Your task to perform on an android device: change alarm snooze length Image 0: 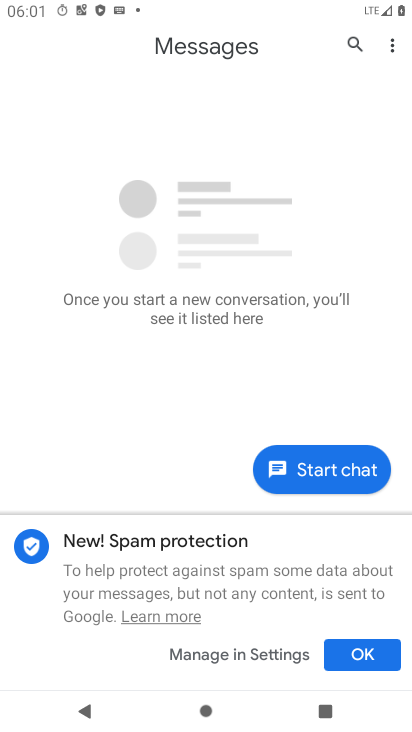
Step 0: press home button
Your task to perform on an android device: change alarm snooze length Image 1: 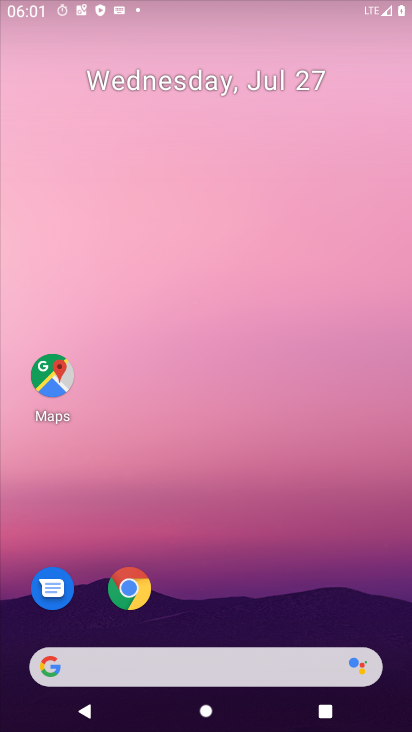
Step 1: drag from (271, 571) to (333, 28)
Your task to perform on an android device: change alarm snooze length Image 2: 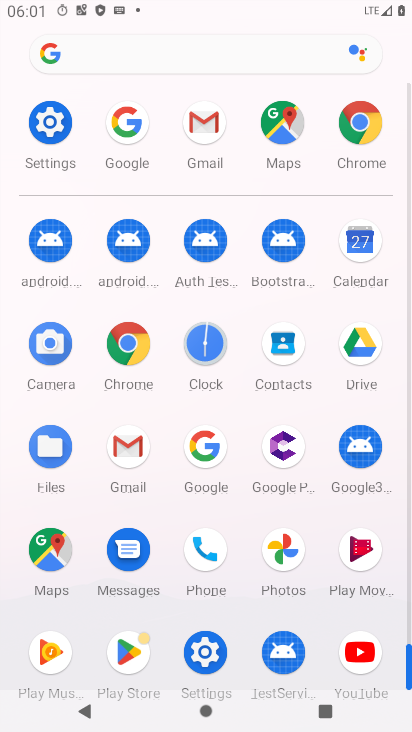
Step 2: click (204, 355)
Your task to perform on an android device: change alarm snooze length Image 3: 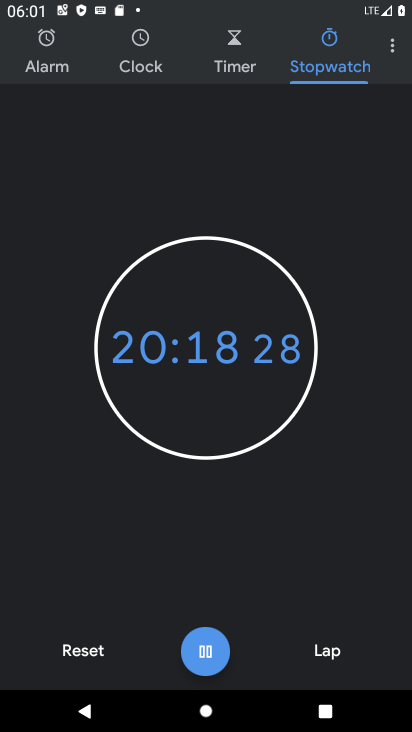
Step 3: click (393, 48)
Your task to perform on an android device: change alarm snooze length Image 4: 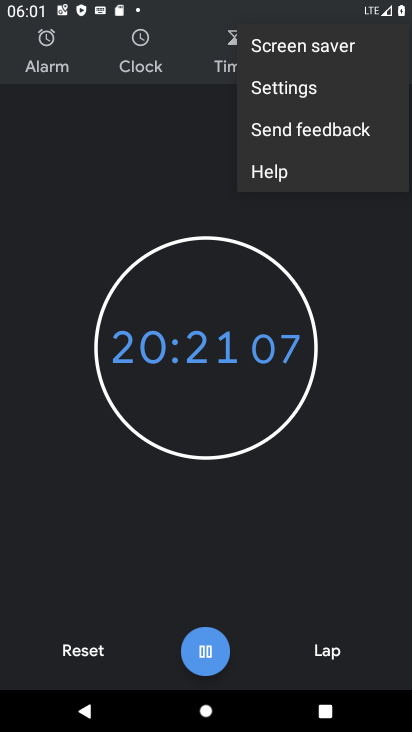
Step 4: click (301, 82)
Your task to perform on an android device: change alarm snooze length Image 5: 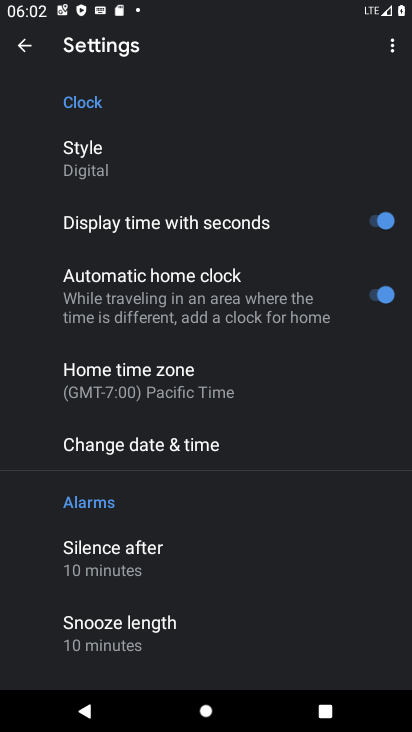
Step 5: click (164, 631)
Your task to perform on an android device: change alarm snooze length Image 6: 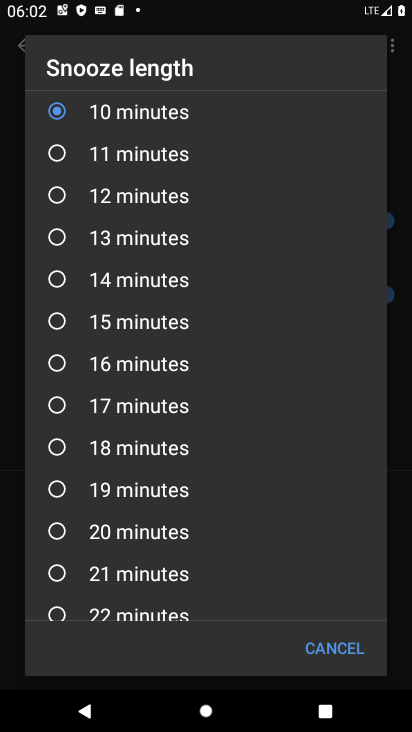
Step 6: click (62, 194)
Your task to perform on an android device: change alarm snooze length Image 7: 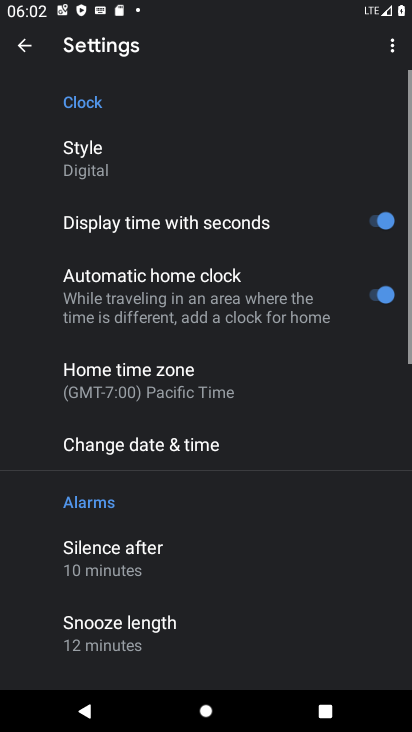
Step 7: task complete